Your task to perform on an android device: Go to privacy settings Image 0: 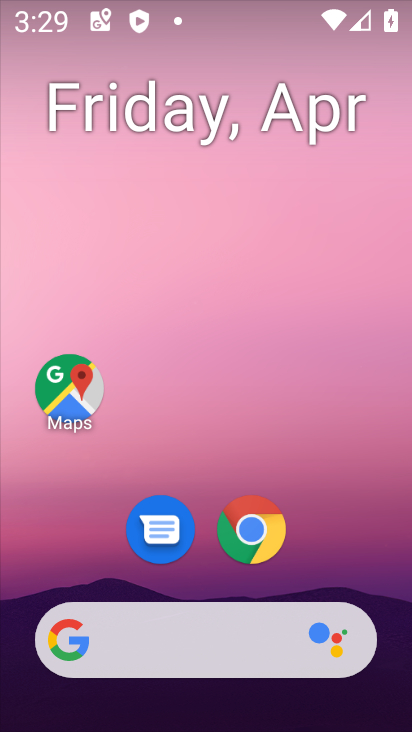
Step 0: click (246, 508)
Your task to perform on an android device: Go to privacy settings Image 1: 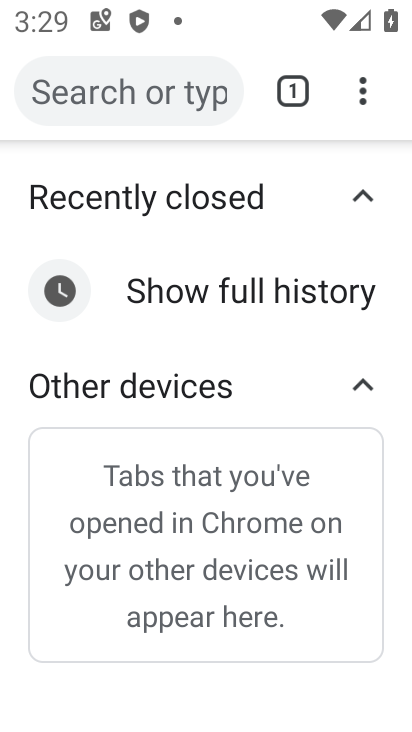
Step 1: click (351, 93)
Your task to perform on an android device: Go to privacy settings Image 2: 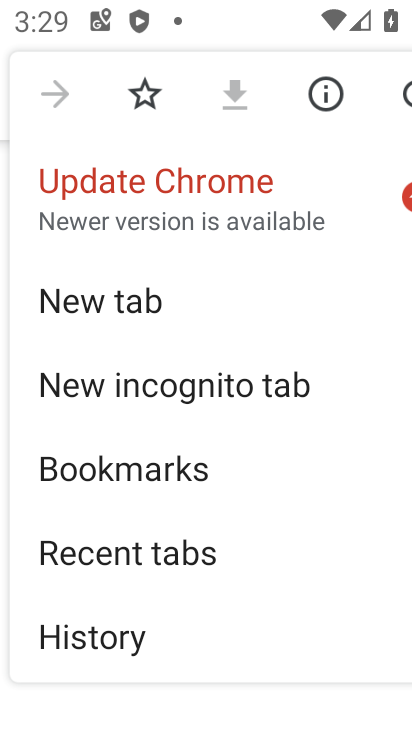
Step 2: drag from (156, 647) to (143, 445)
Your task to perform on an android device: Go to privacy settings Image 3: 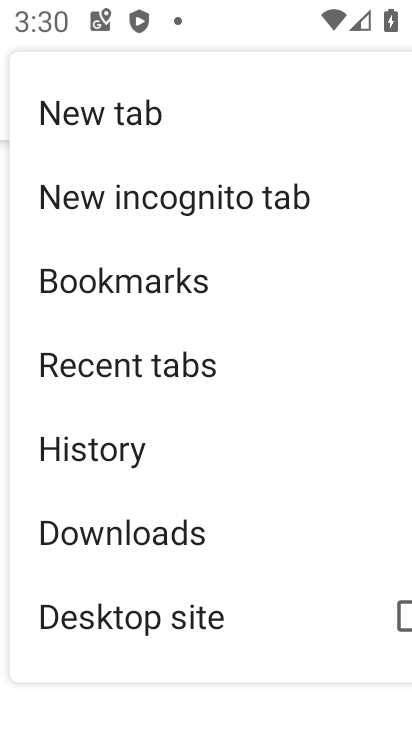
Step 3: drag from (147, 571) to (142, 404)
Your task to perform on an android device: Go to privacy settings Image 4: 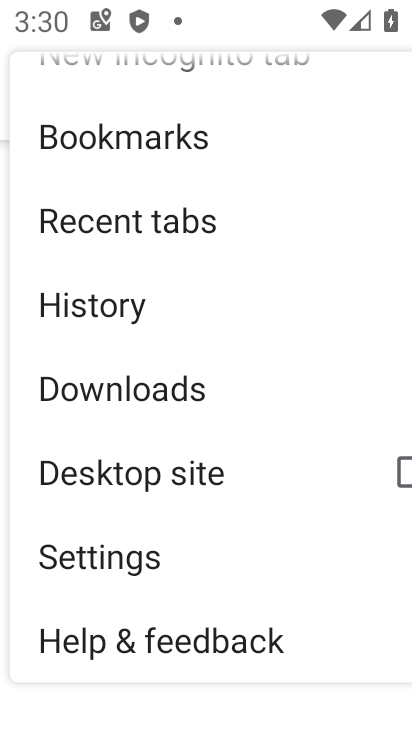
Step 4: drag from (185, 574) to (192, 384)
Your task to perform on an android device: Go to privacy settings Image 5: 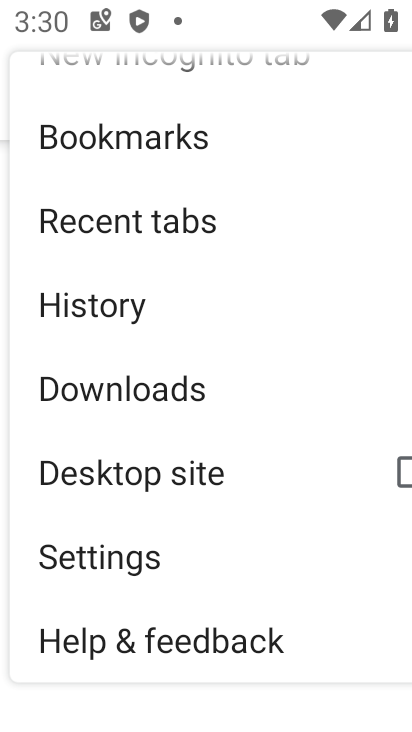
Step 5: click (174, 553)
Your task to perform on an android device: Go to privacy settings Image 6: 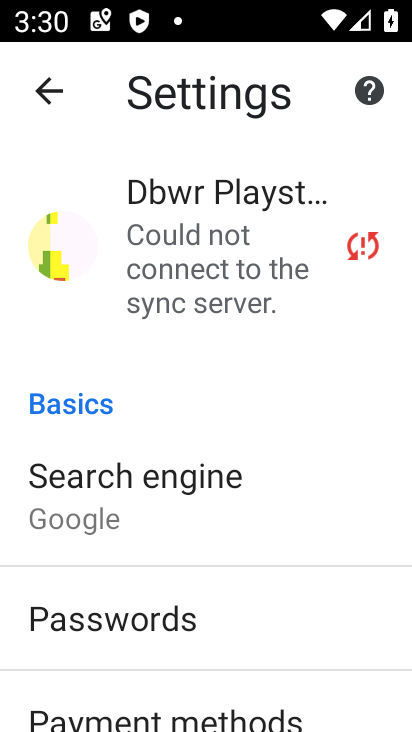
Step 6: drag from (127, 641) to (112, 474)
Your task to perform on an android device: Go to privacy settings Image 7: 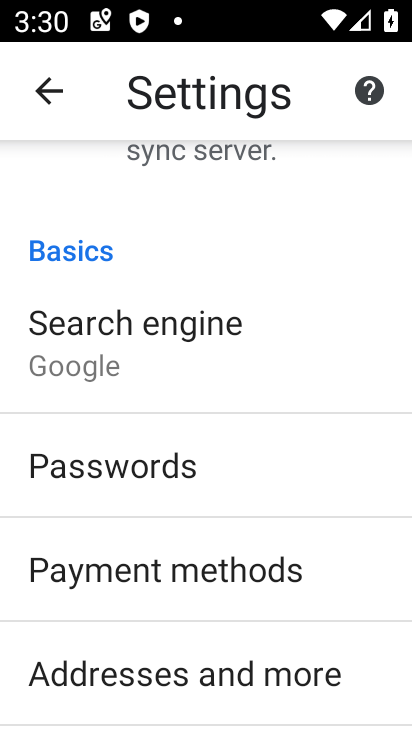
Step 7: drag from (109, 593) to (99, 418)
Your task to perform on an android device: Go to privacy settings Image 8: 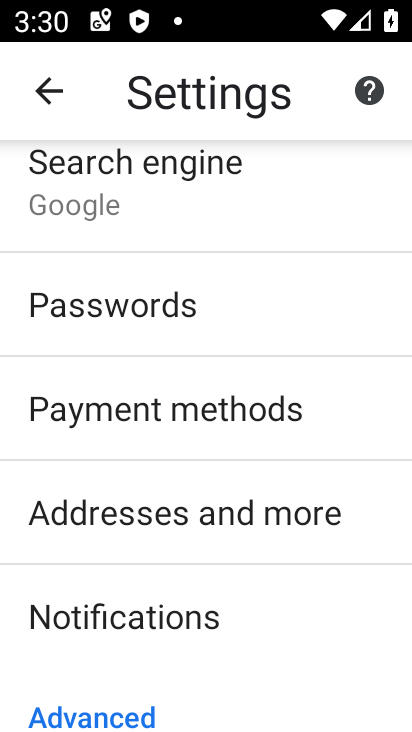
Step 8: drag from (107, 541) to (91, 415)
Your task to perform on an android device: Go to privacy settings Image 9: 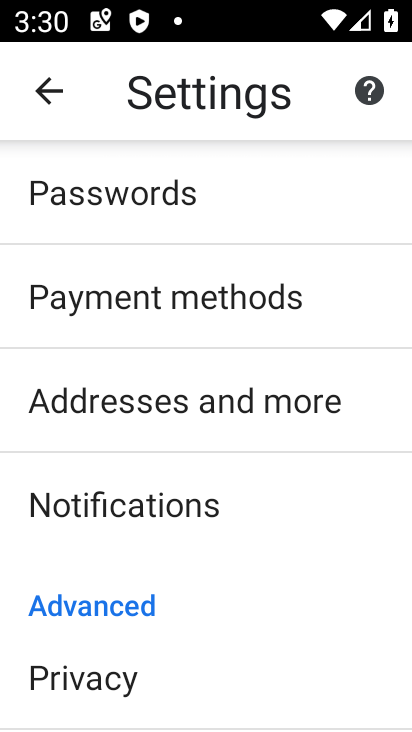
Step 9: drag from (102, 548) to (117, 374)
Your task to perform on an android device: Go to privacy settings Image 10: 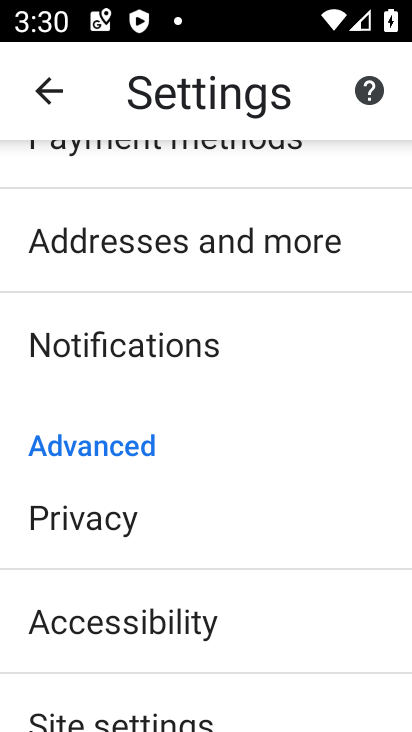
Step 10: click (143, 517)
Your task to perform on an android device: Go to privacy settings Image 11: 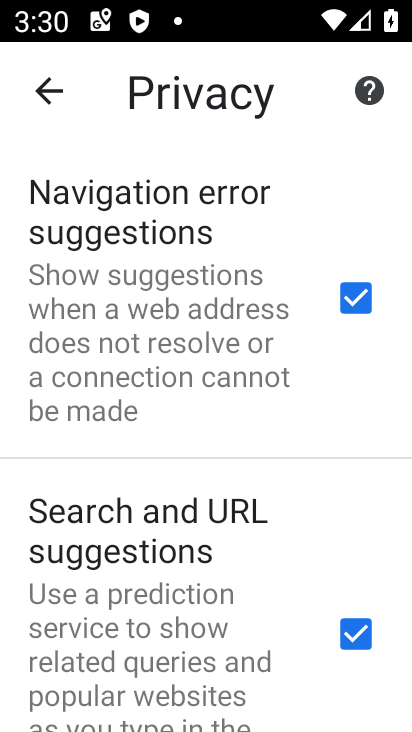
Step 11: task complete